Your task to perform on an android device: Open Google Chrome and open the bookmarks view Image 0: 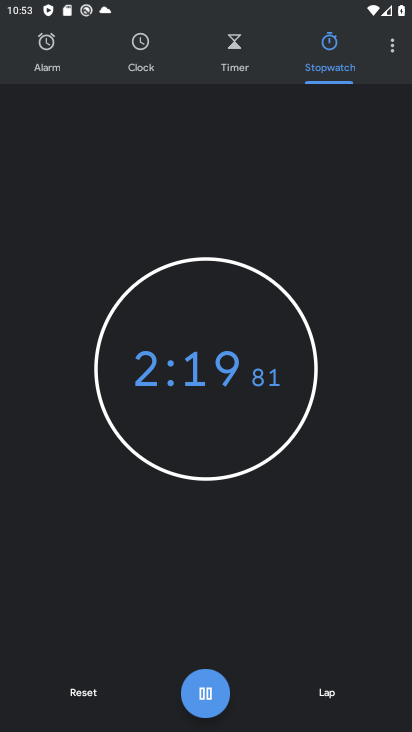
Step 0: press home button
Your task to perform on an android device: Open Google Chrome and open the bookmarks view Image 1: 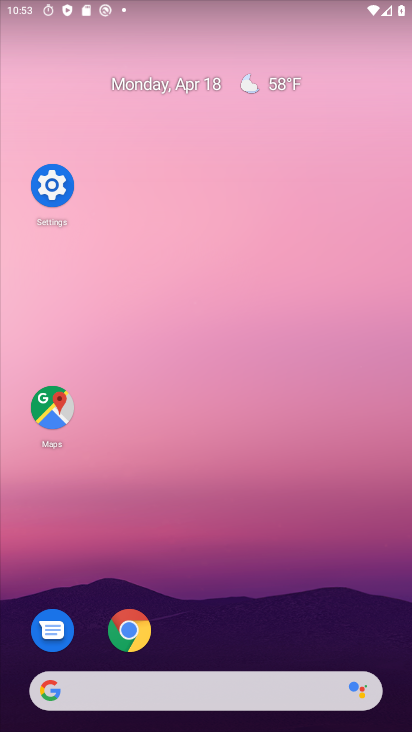
Step 1: click (136, 638)
Your task to perform on an android device: Open Google Chrome and open the bookmarks view Image 2: 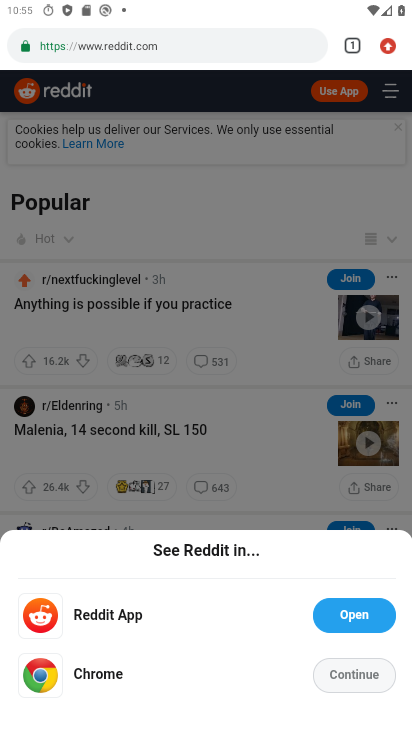
Step 2: press back button
Your task to perform on an android device: Open Google Chrome and open the bookmarks view Image 3: 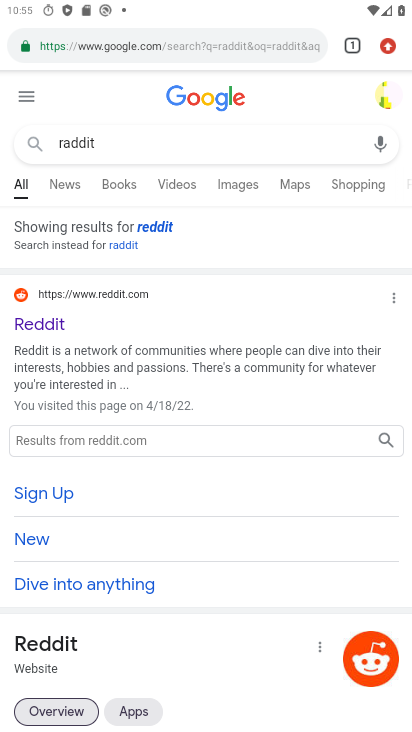
Step 3: click (390, 45)
Your task to perform on an android device: Open Google Chrome and open the bookmarks view Image 4: 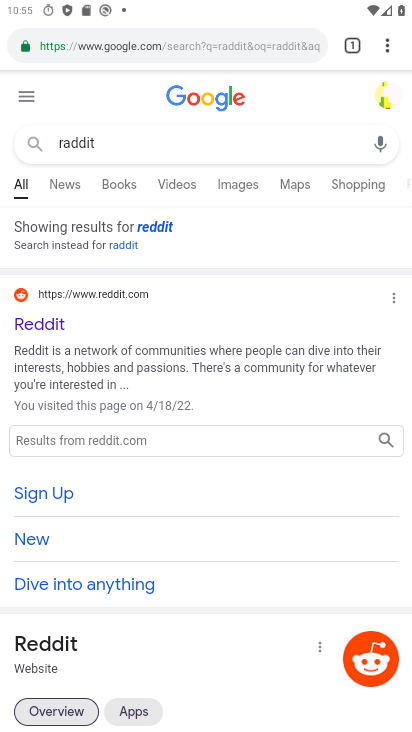
Step 4: click (382, 51)
Your task to perform on an android device: Open Google Chrome and open the bookmarks view Image 5: 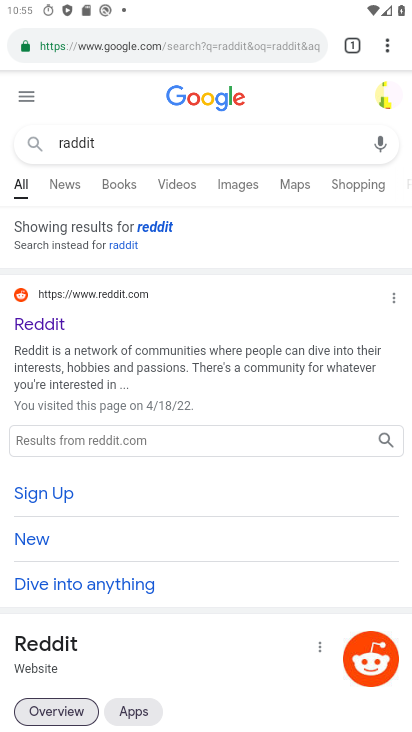
Step 5: click (382, 43)
Your task to perform on an android device: Open Google Chrome and open the bookmarks view Image 6: 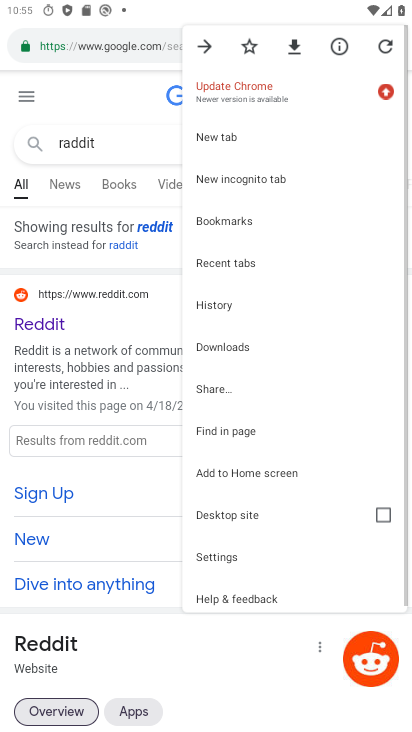
Step 6: click (292, 219)
Your task to perform on an android device: Open Google Chrome and open the bookmarks view Image 7: 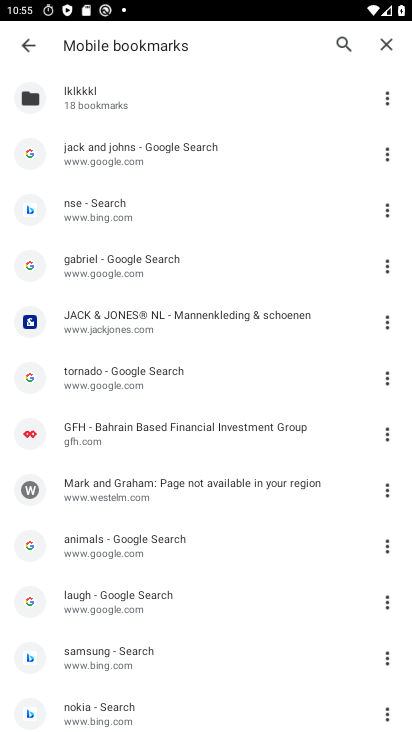
Step 7: task complete